Your task to perform on an android device: check out phone information Image 0: 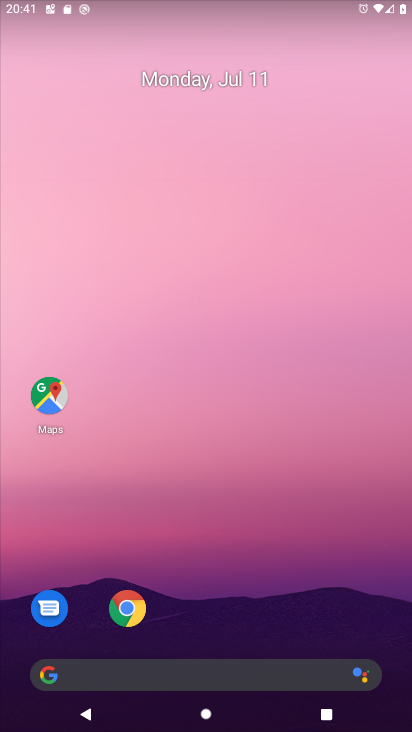
Step 0: drag from (276, 607) to (184, 17)
Your task to perform on an android device: check out phone information Image 1: 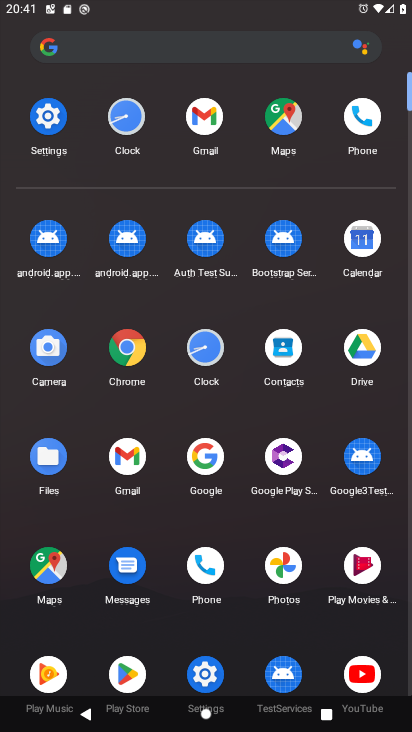
Step 1: click (55, 136)
Your task to perform on an android device: check out phone information Image 2: 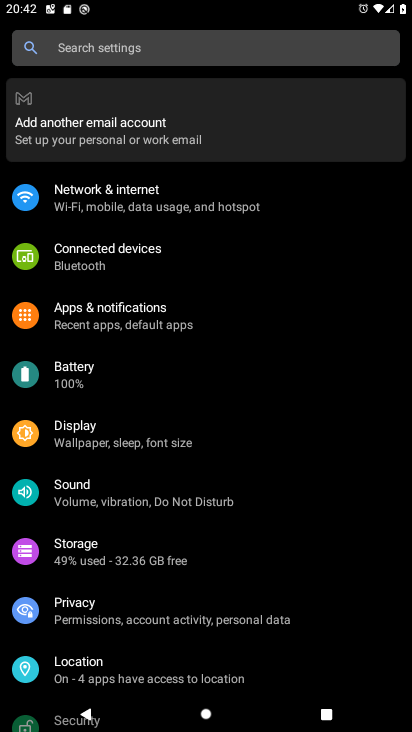
Step 2: drag from (200, 610) to (170, 4)
Your task to perform on an android device: check out phone information Image 3: 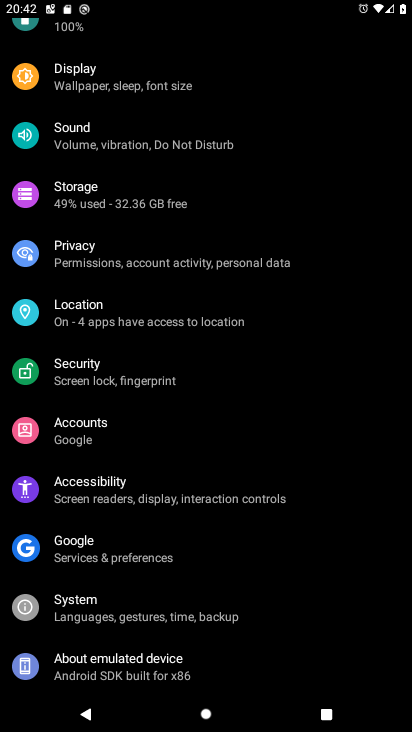
Step 3: click (242, 656)
Your task to perform on an android device: check out phone information Image 4: 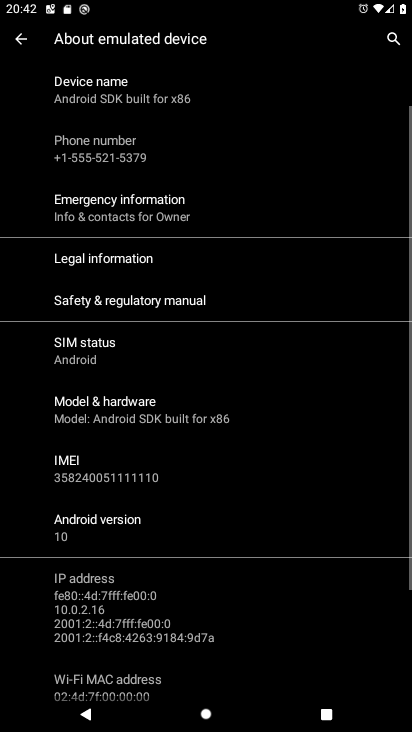
Step 4: task complete